Your task to perform on an android device: install app "Google Pay: Save, Pay, Manage" Image 0: 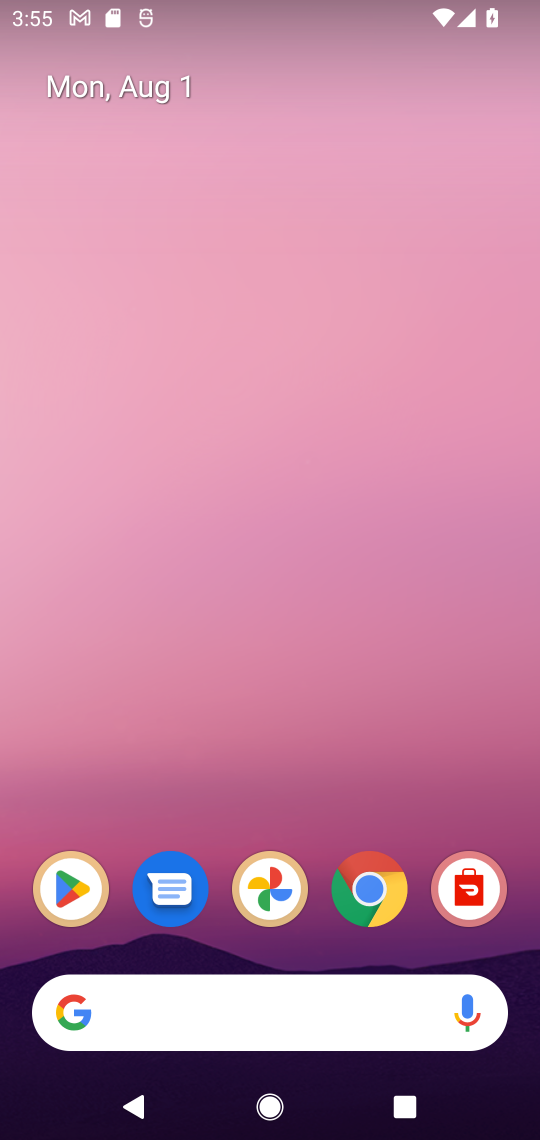
Step 0: click (251, 192)
Your task to perform on an android device: install app "Google Pay: Save, Pay, Manage" Image 1: 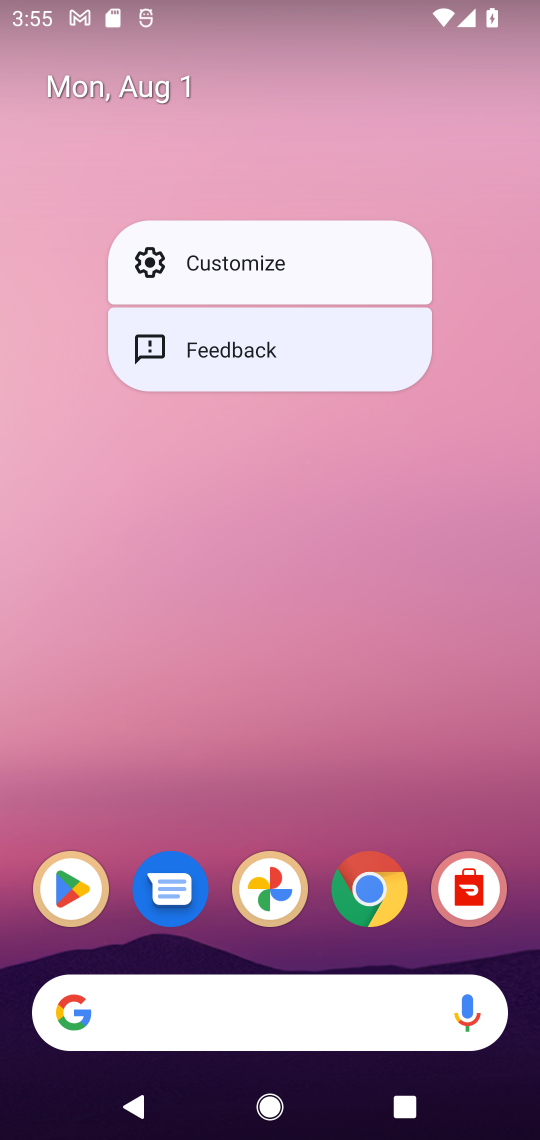
Step 1: drag from (293, 976) to (279, 268)
Your task to perform on an android device: install app "Google Pay: Save, Pay, Manage" Image 2: 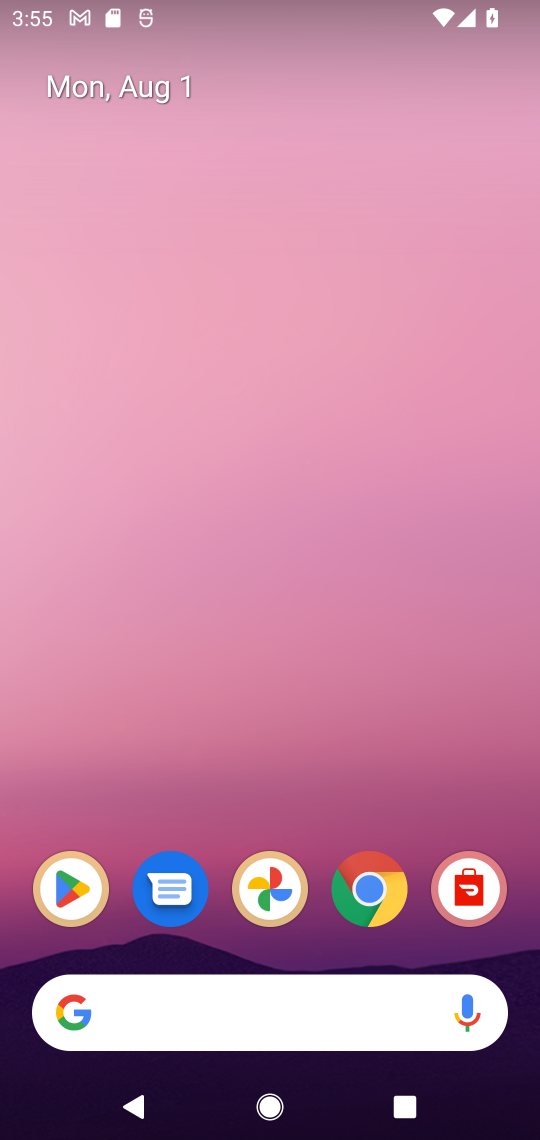
Step 2: drag from (308, 823) to (319, 413)
Your task to perform on an android device: install app "Google Pay: Save, Pay, Manage" Image 3: 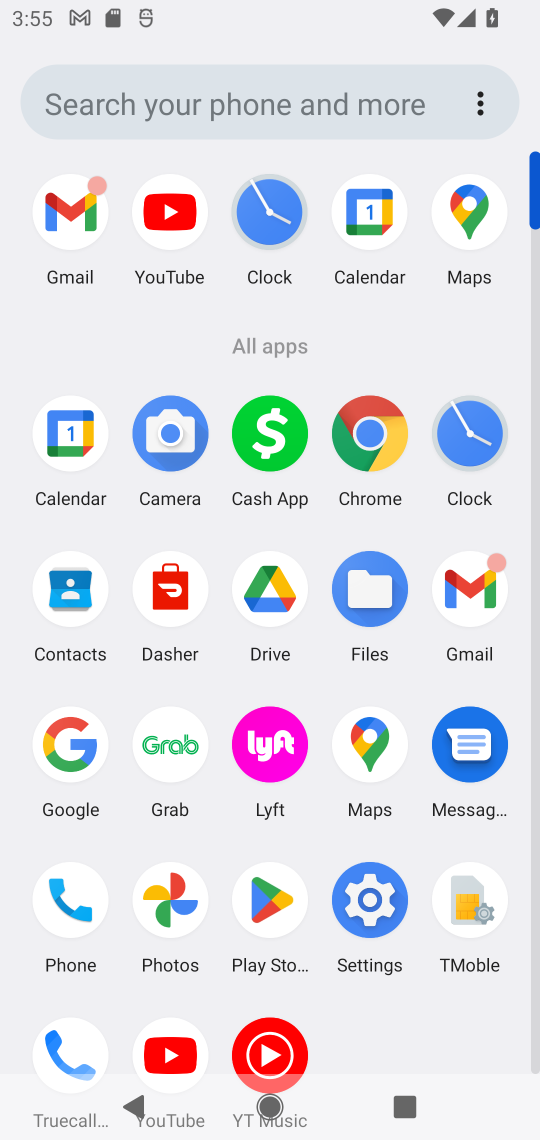
Step 3: click (270, 900)
Your task to perform on an android device: install app "Google Pay: Save, Pay, Manage" Image 4: 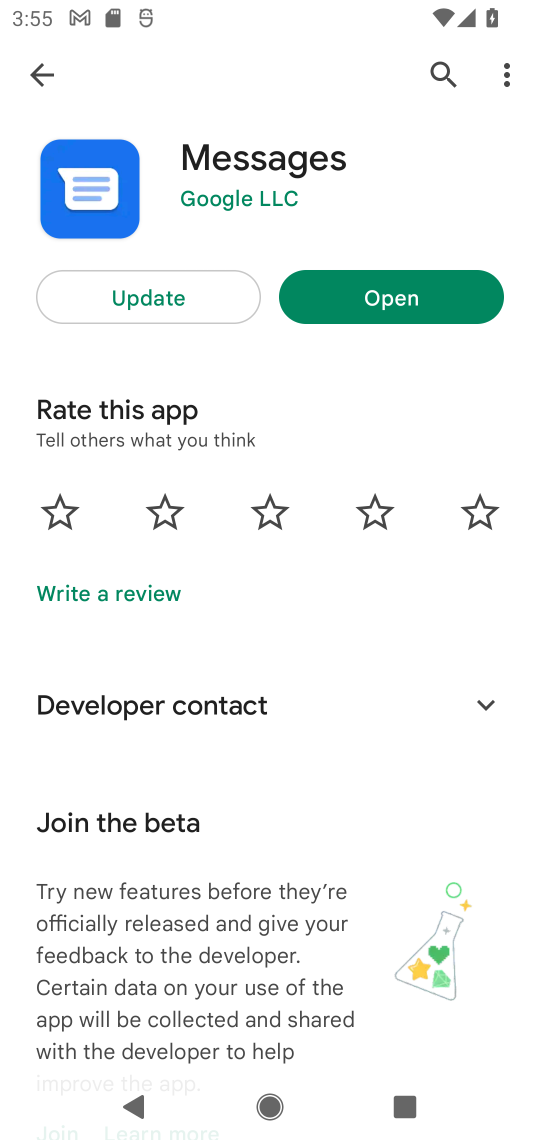
Step 4: click (448, 68)
Your task to perform on an android device: install app "Google Pay: Save, Pay, Manage" Image 5: 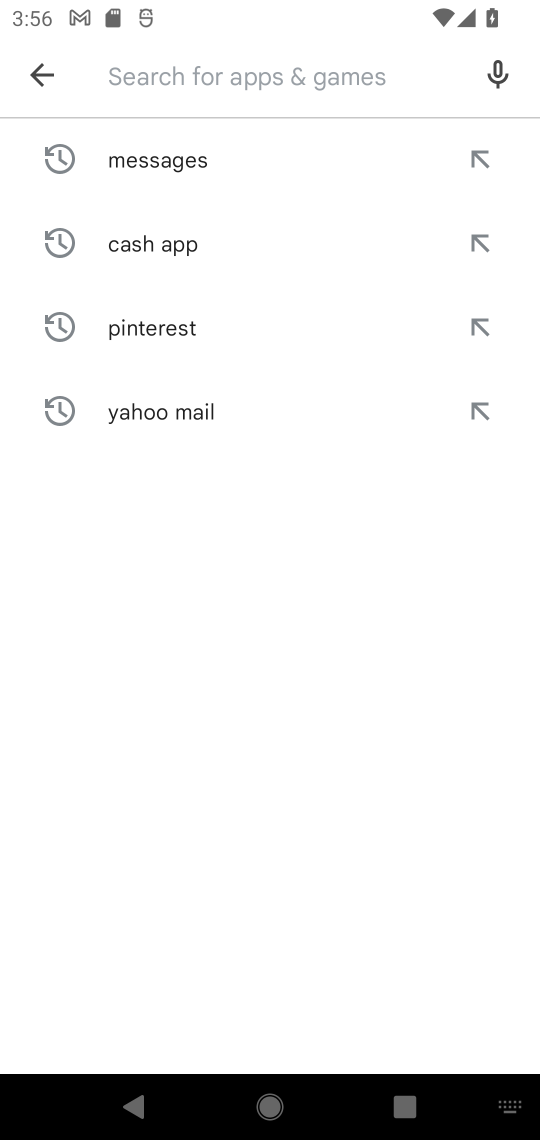
Step 5: type "Google Pay: Save, Pay, Manage"
Your task to perform on an android device: install app "Google Pay: Save, Pay, Manage" Image 6: 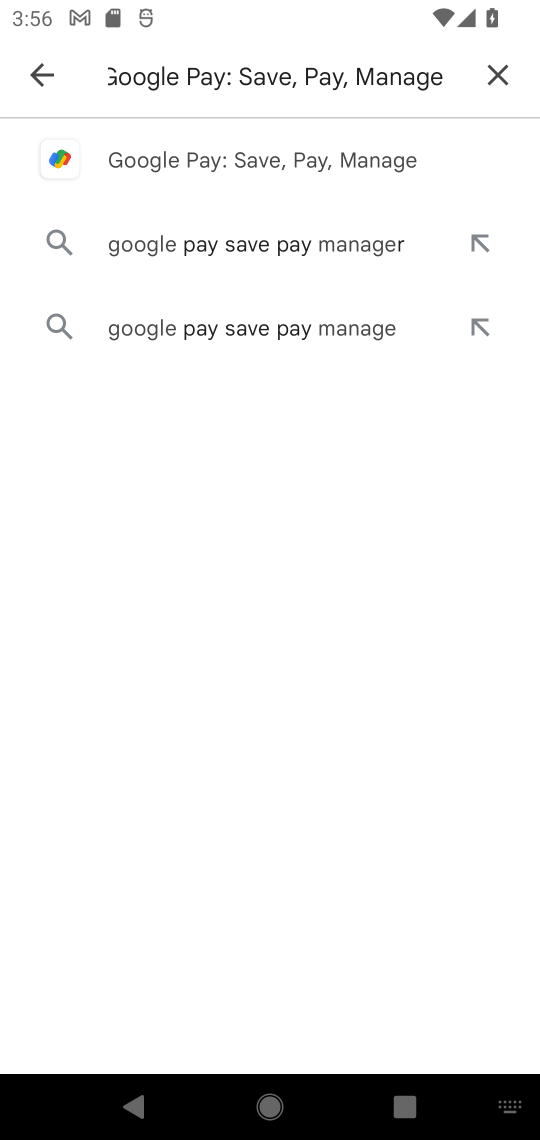
Step 6: click (354, 151)
Your task to perform on an android device: install app "Google Pay: Save, Pay, Manage" Image 7: 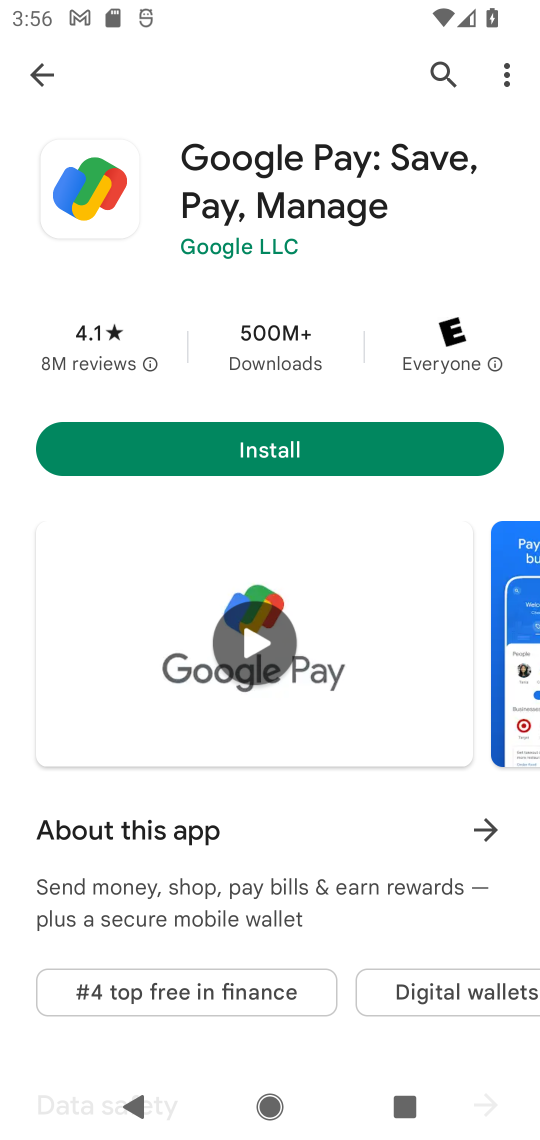
Step 7: click (257, 446)
Your task to perform on an android device: install app "Google Pay: Save, Pay, Manage" Image 8: 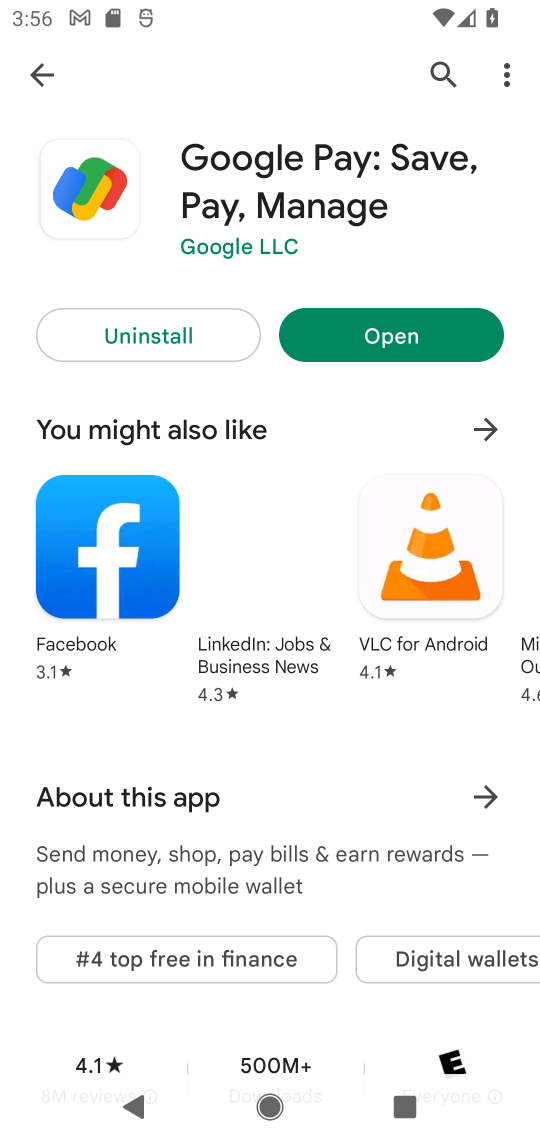
Step 8: task complete